Your task to perform on an android device: Open wifi settings Image 0: 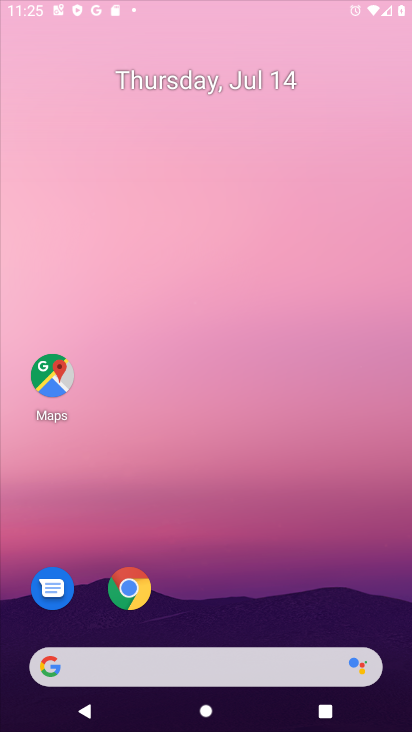
Step 0: press home button
Your task to perform on an android device: Open wifi settings Image 1: 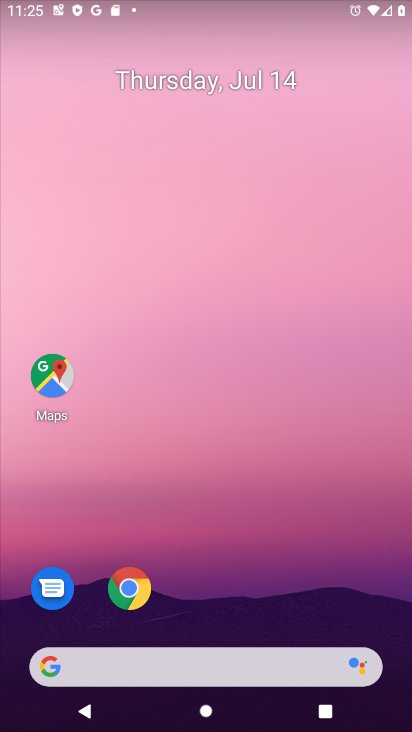
Step 1: drag from (151, 1) to (151, 375)
Your task to perform on an android device: Open wifi settings Image 2: 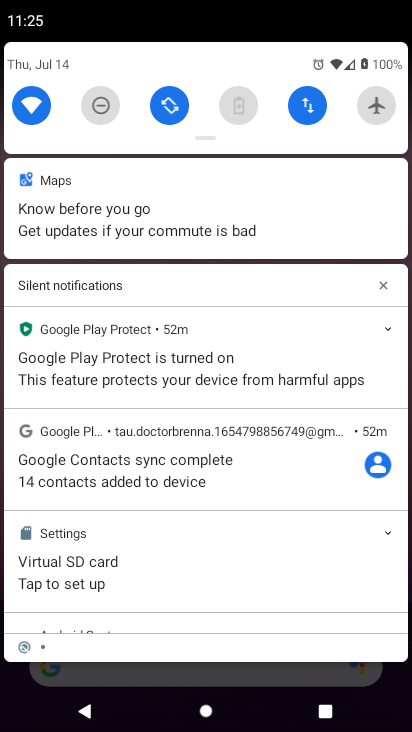
Step 2: click (23, 100)
Your task to perform on an android device: Open wifi settings Image 3: 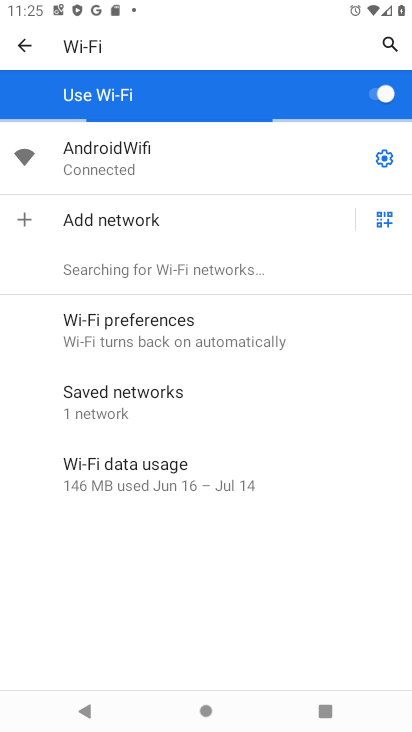
Step 3: task complete